Your task to perform on an android device: change the clock style Image 0: 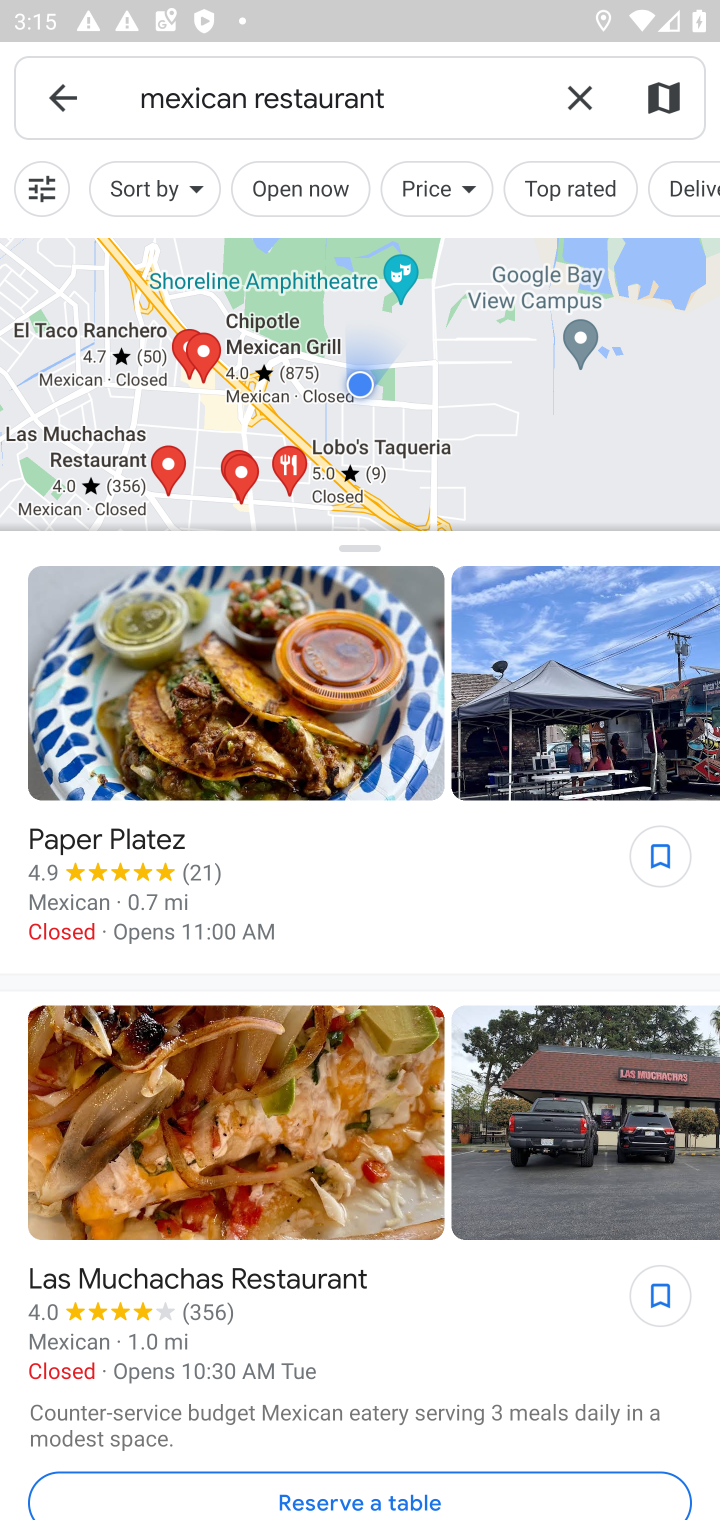
Step 0: press back button
Your task to perform on an android device: change the clock style Image 1: 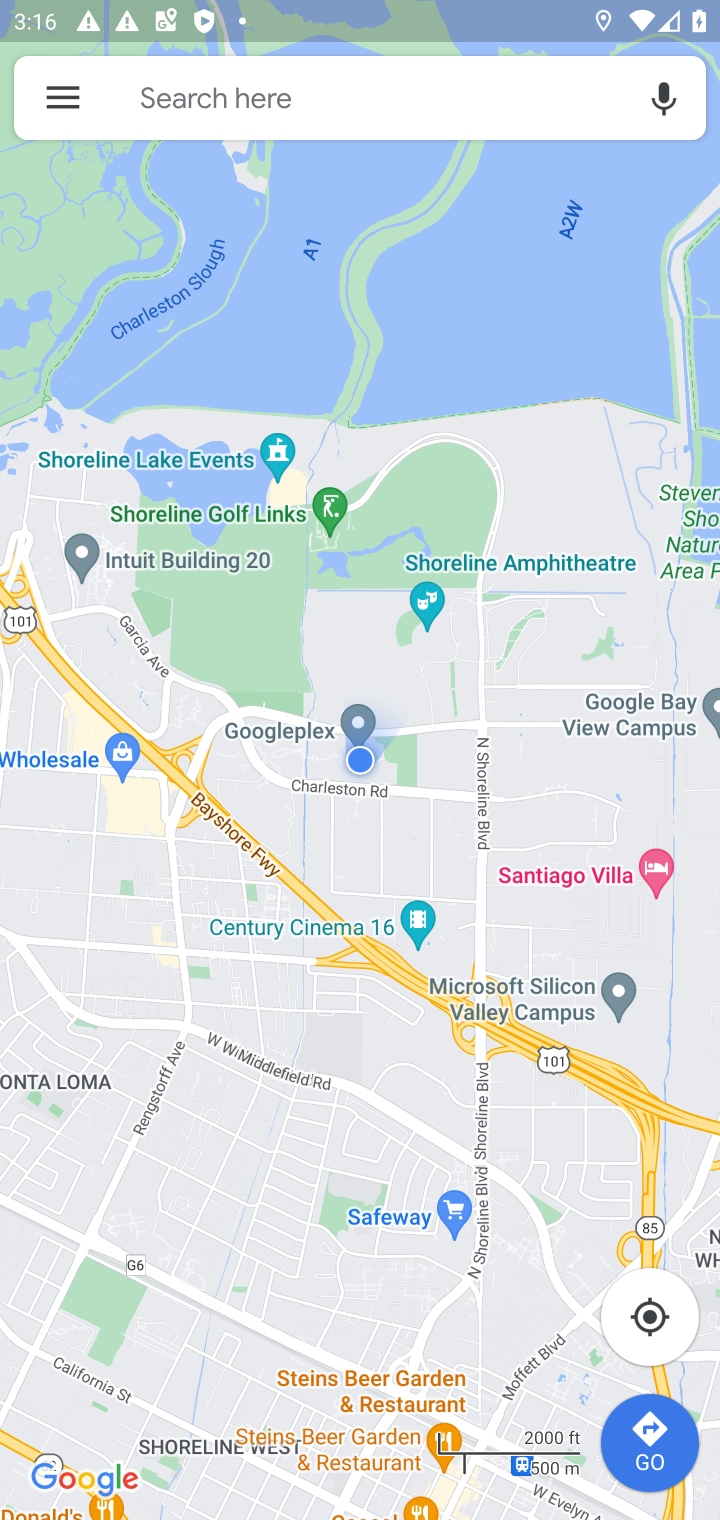
Step 1: press back button
Your task to perform on an android device: change the clock style Image 2: 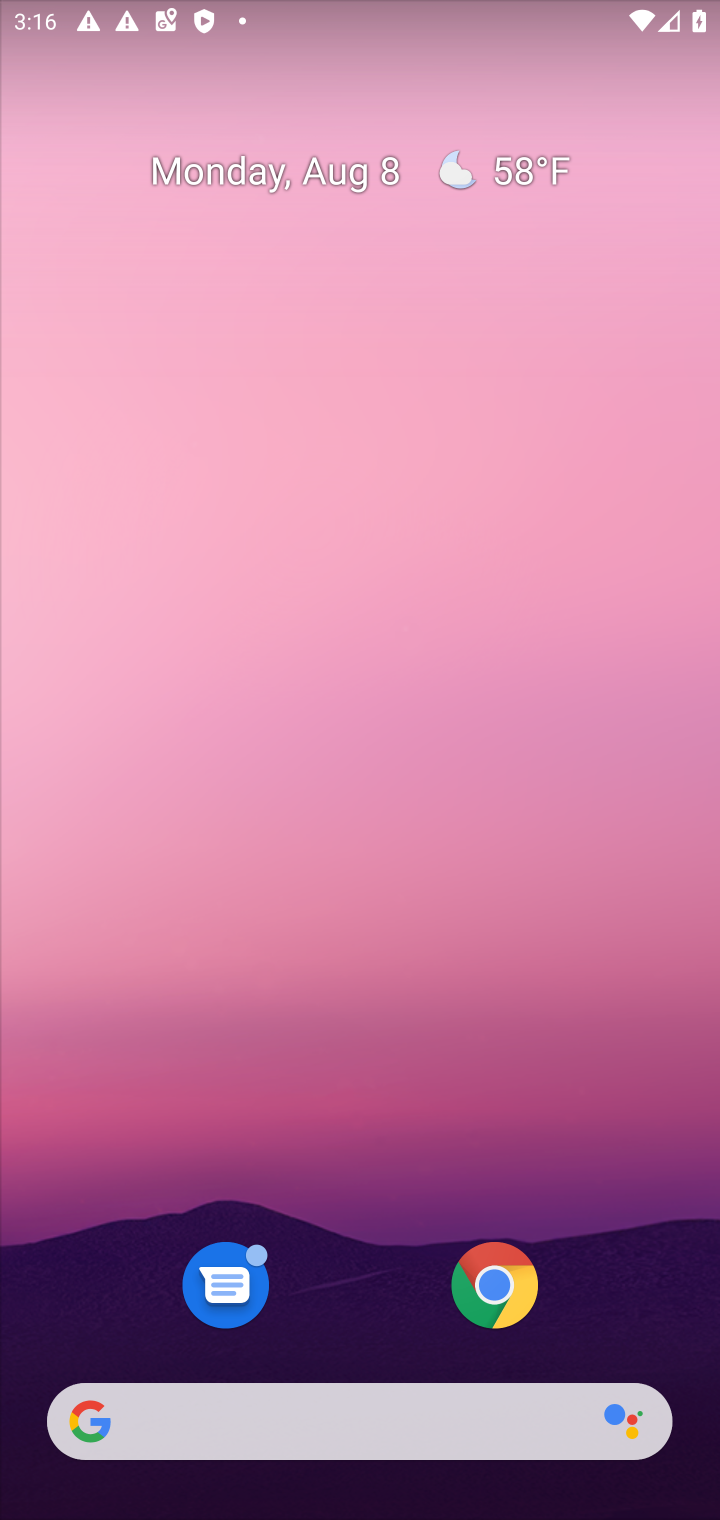
Step 2: drag from (338, 1000) to (375, 220)
Your task to perform on an android device: change the clock style Image 3: 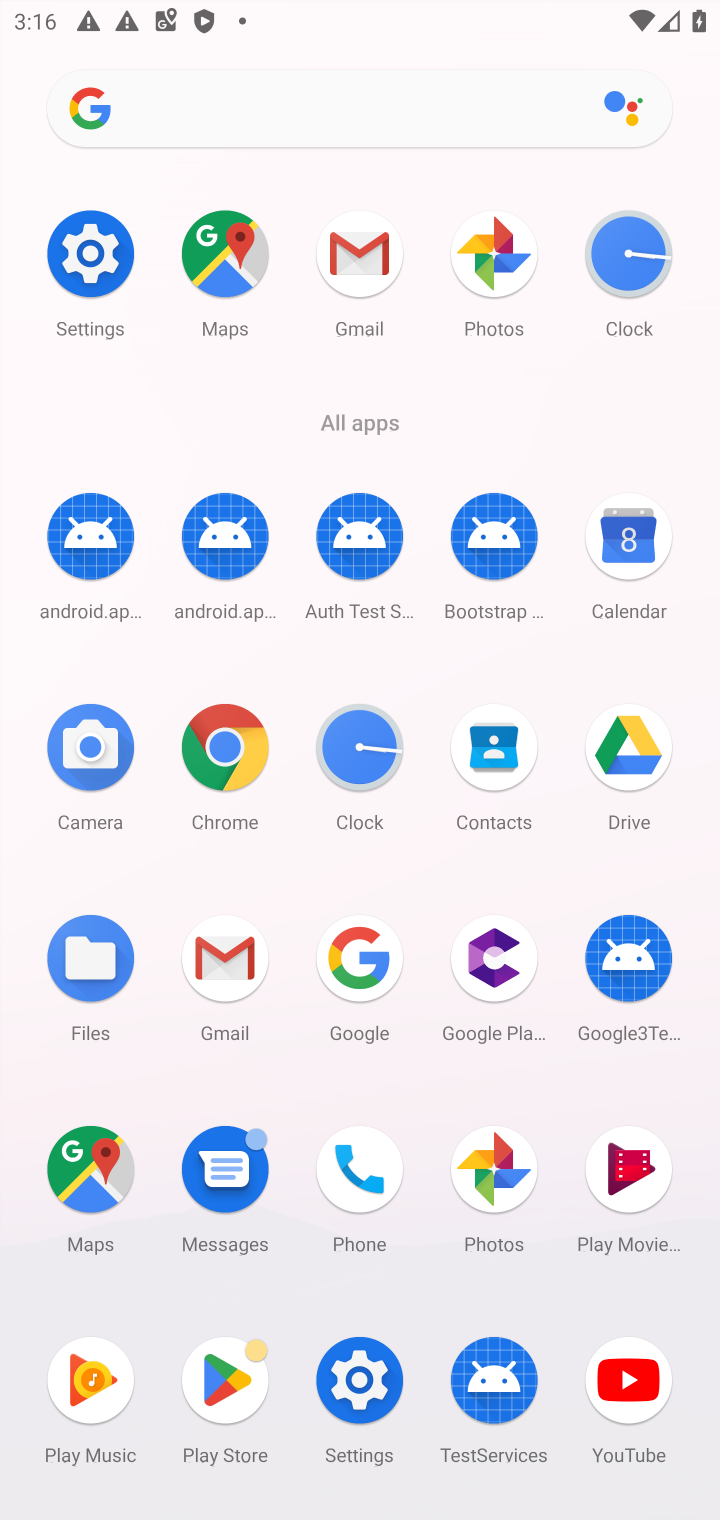
Step 3: click (383, 755)
Your task to perform on an android device: change the clock style Image 4: 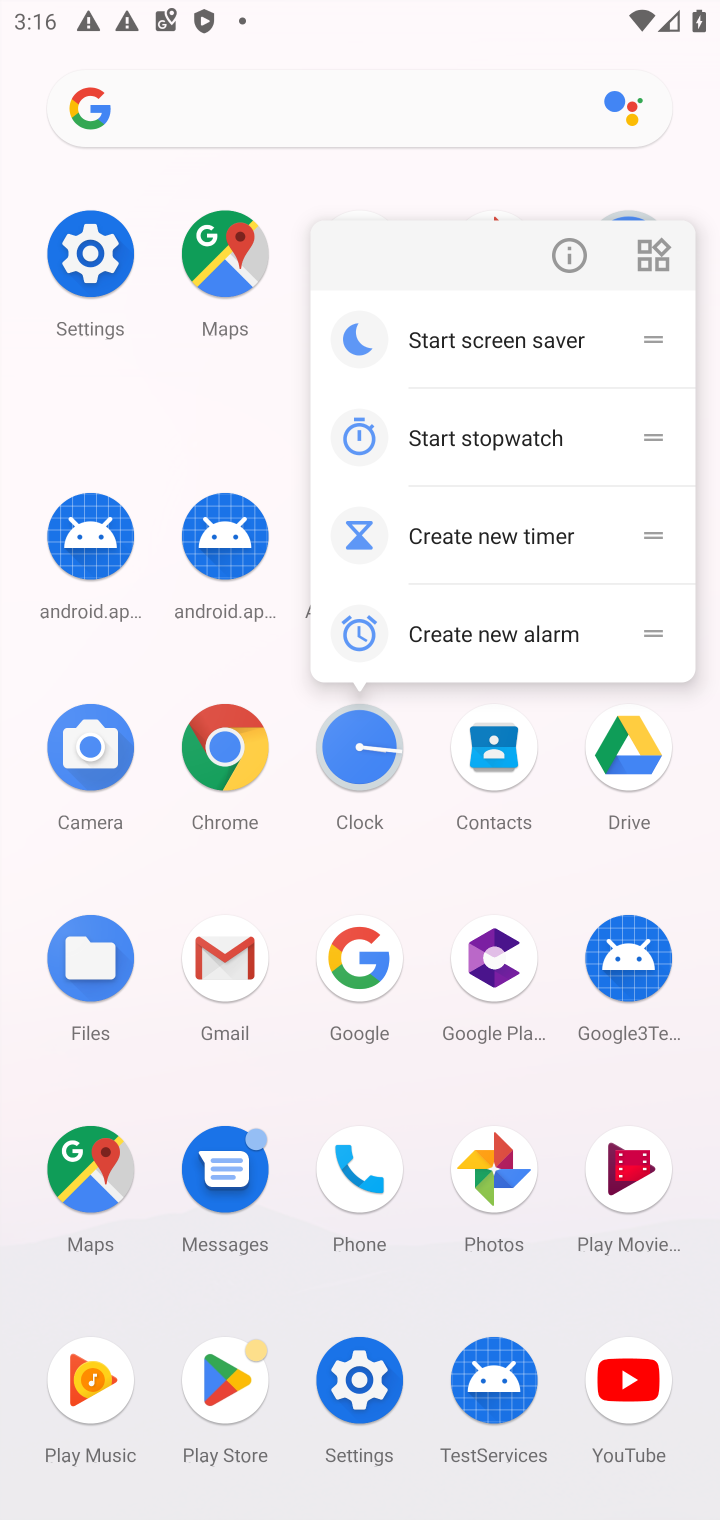
Step 4: click (353, 759)
Your task to perform on an android device: change the clock style Image 5: 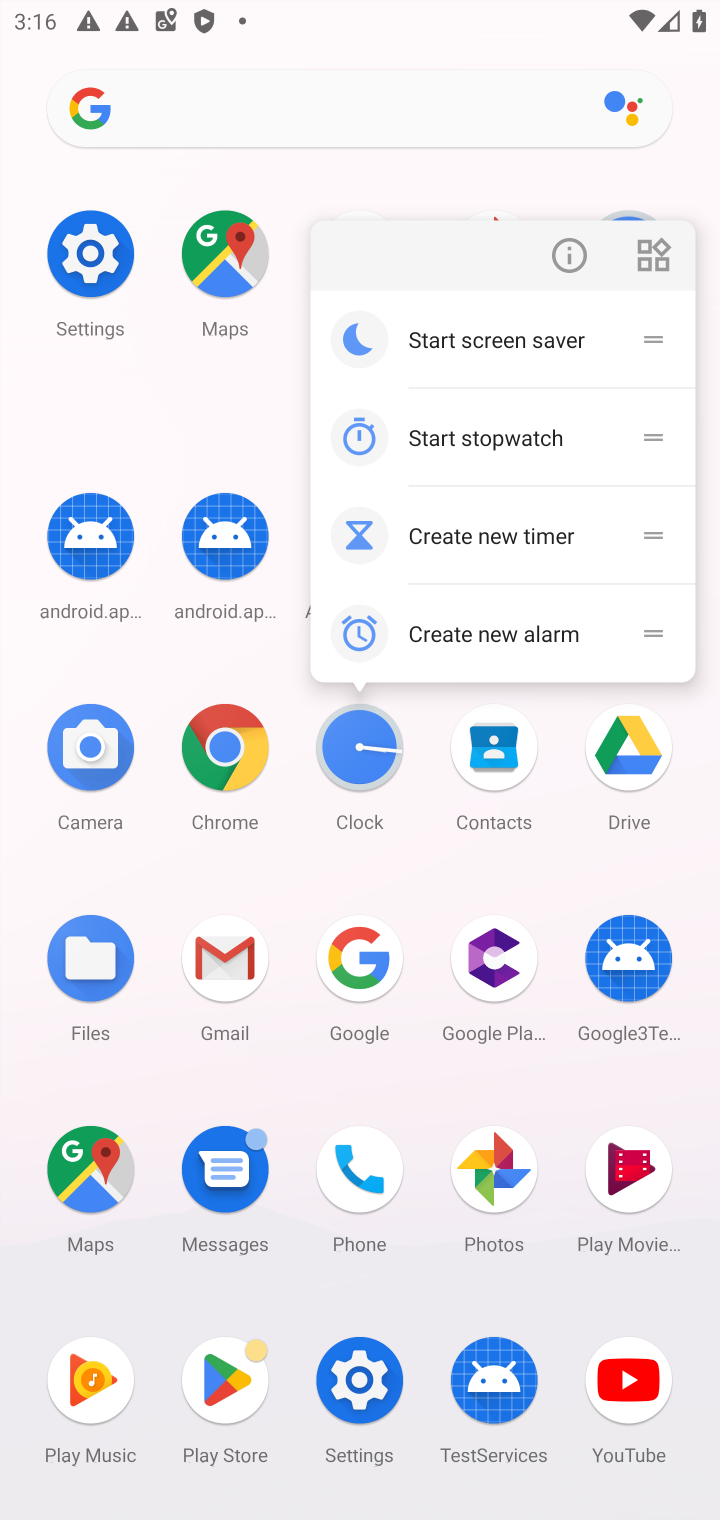
Step 5: click (355, 748)
Your task to perform on an android device: change the clock style Image 6: 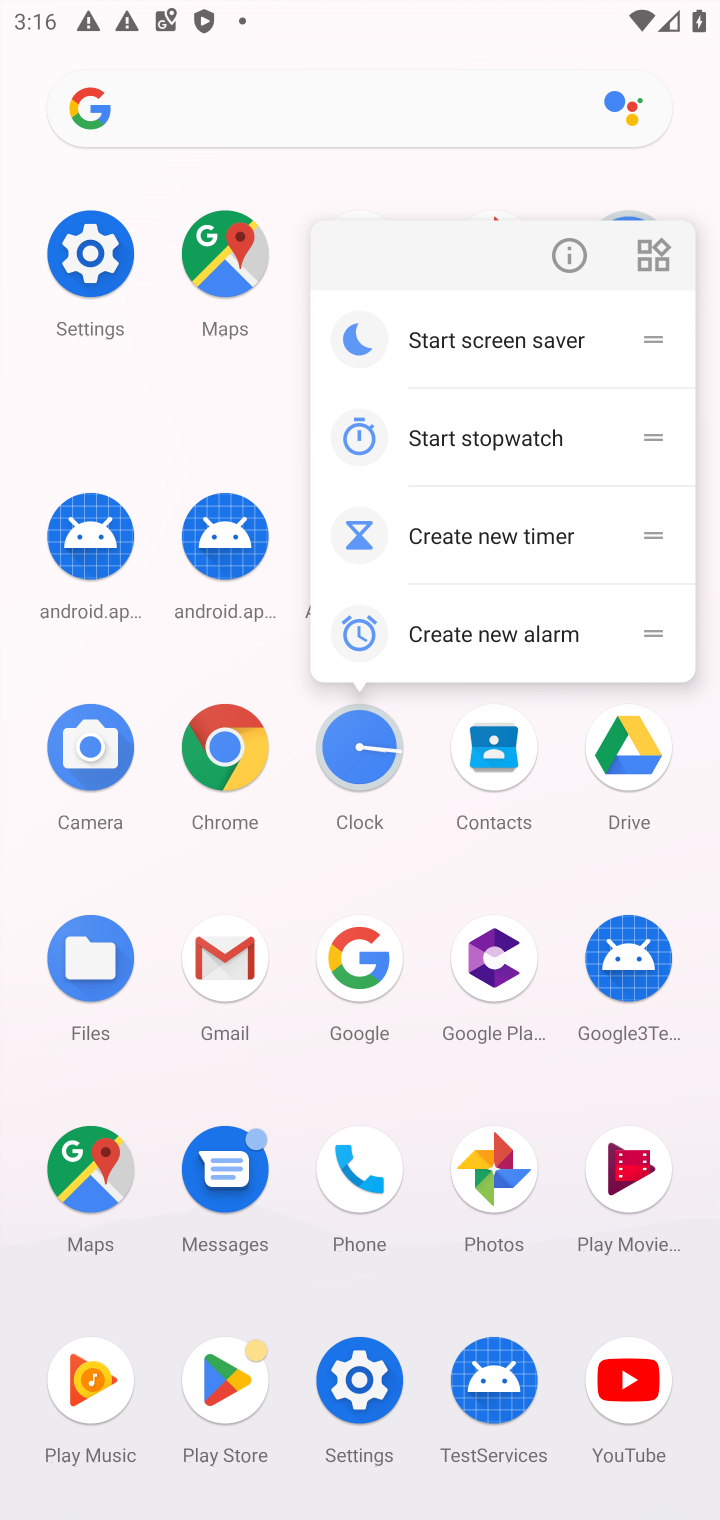
Step 6: click (355, 748)
Your task to perform on an android device: change the clock style Image 7: 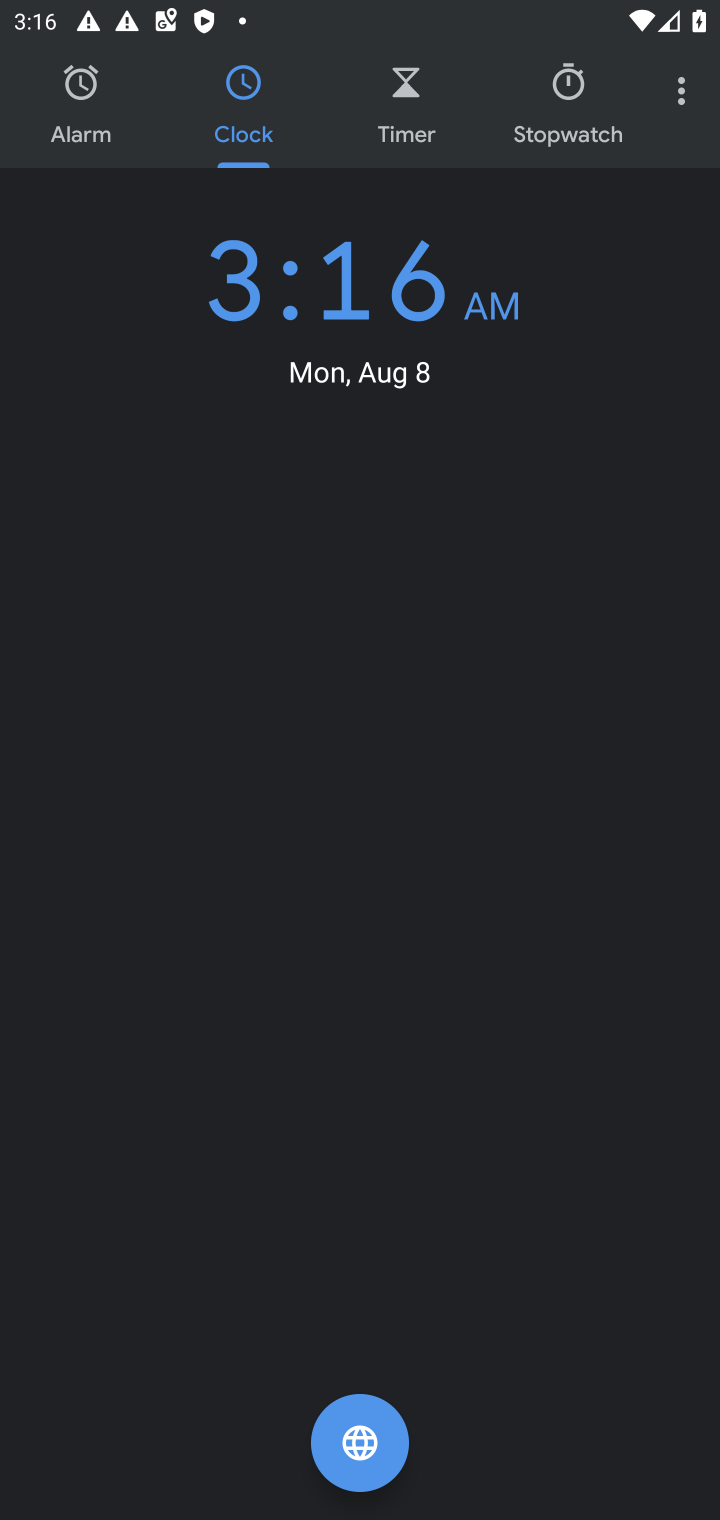
Step 7: click (677, 95)
Your task to perform on an android device: change the clock style Image 8: 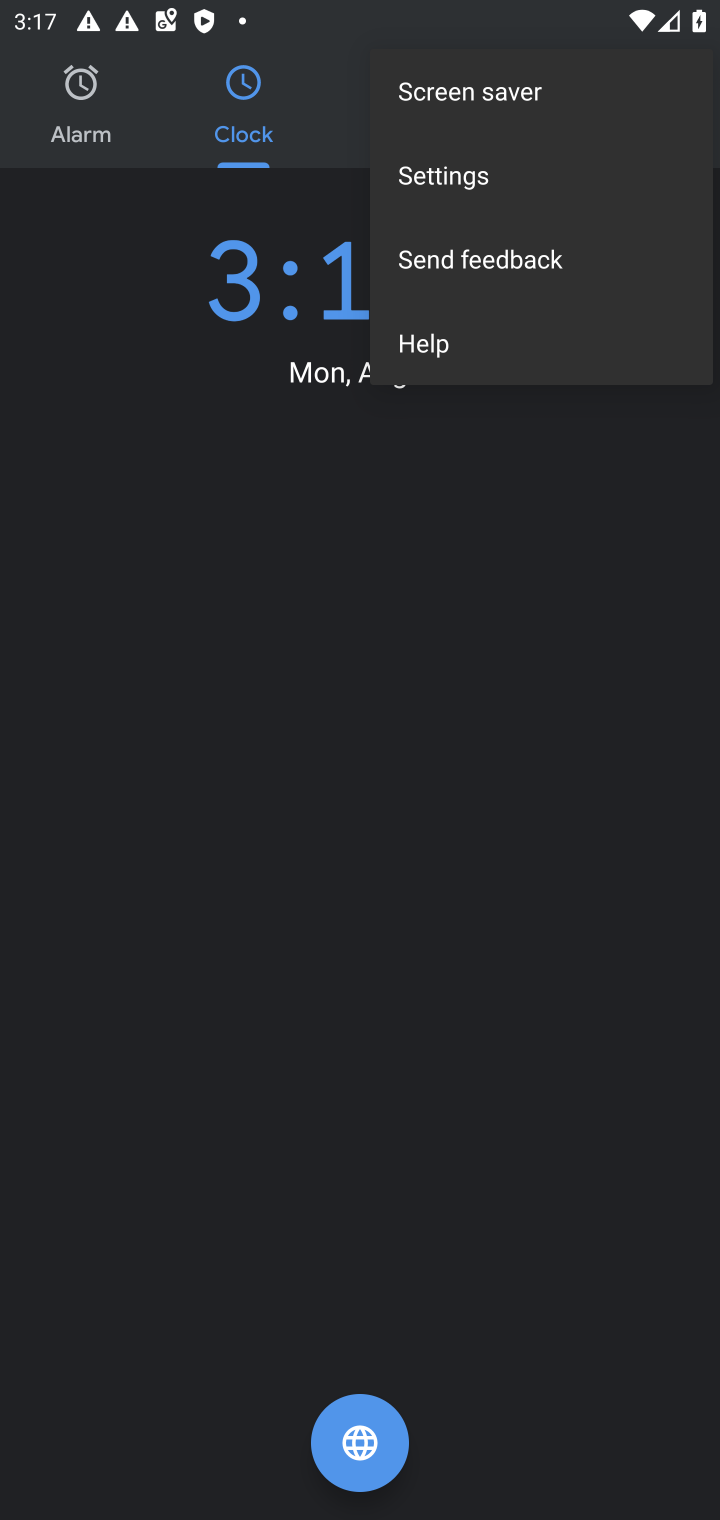
Step 8: click (454, 193)
Your task to perform on an android device: change the clock style Image 9: 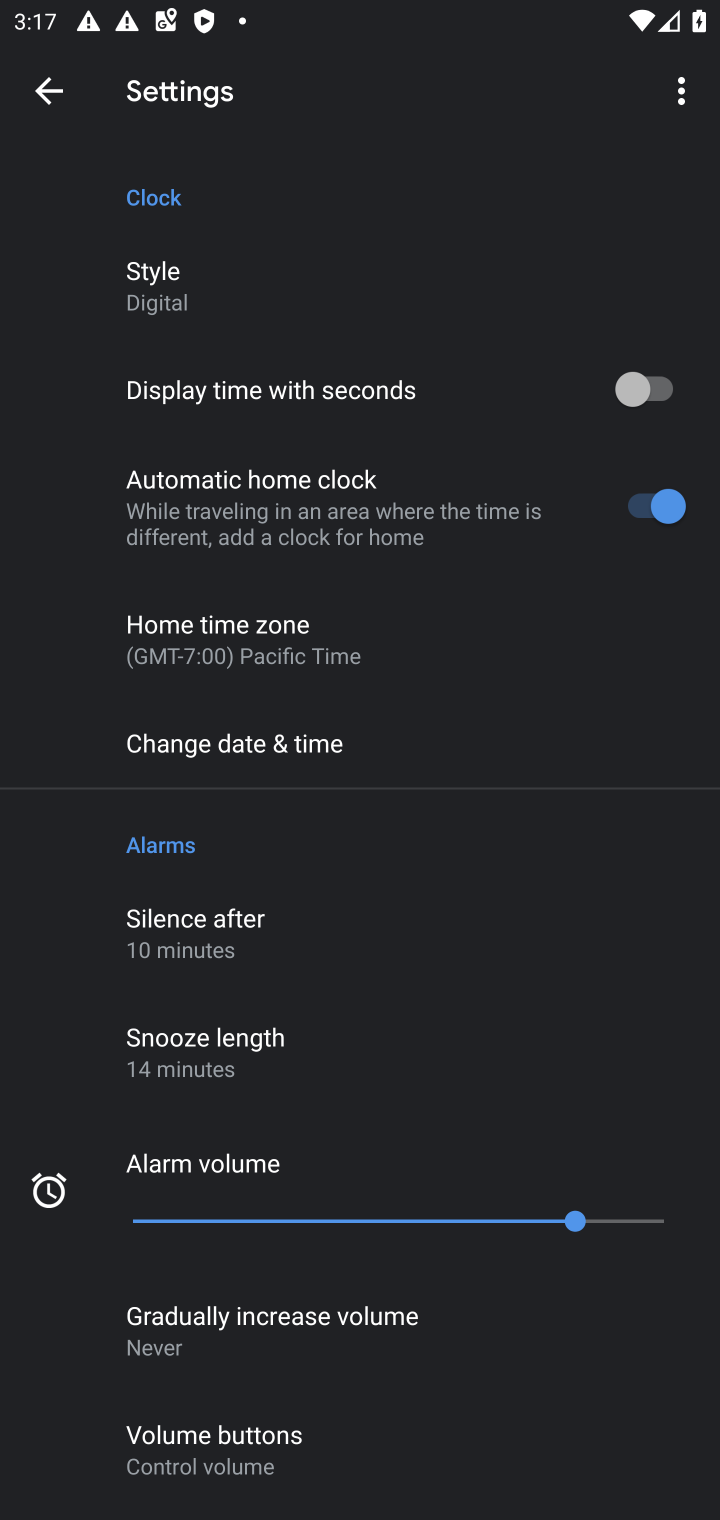
Step 9: click (243, 298)
Your task to perform on an android device: change the clock style Image 10: 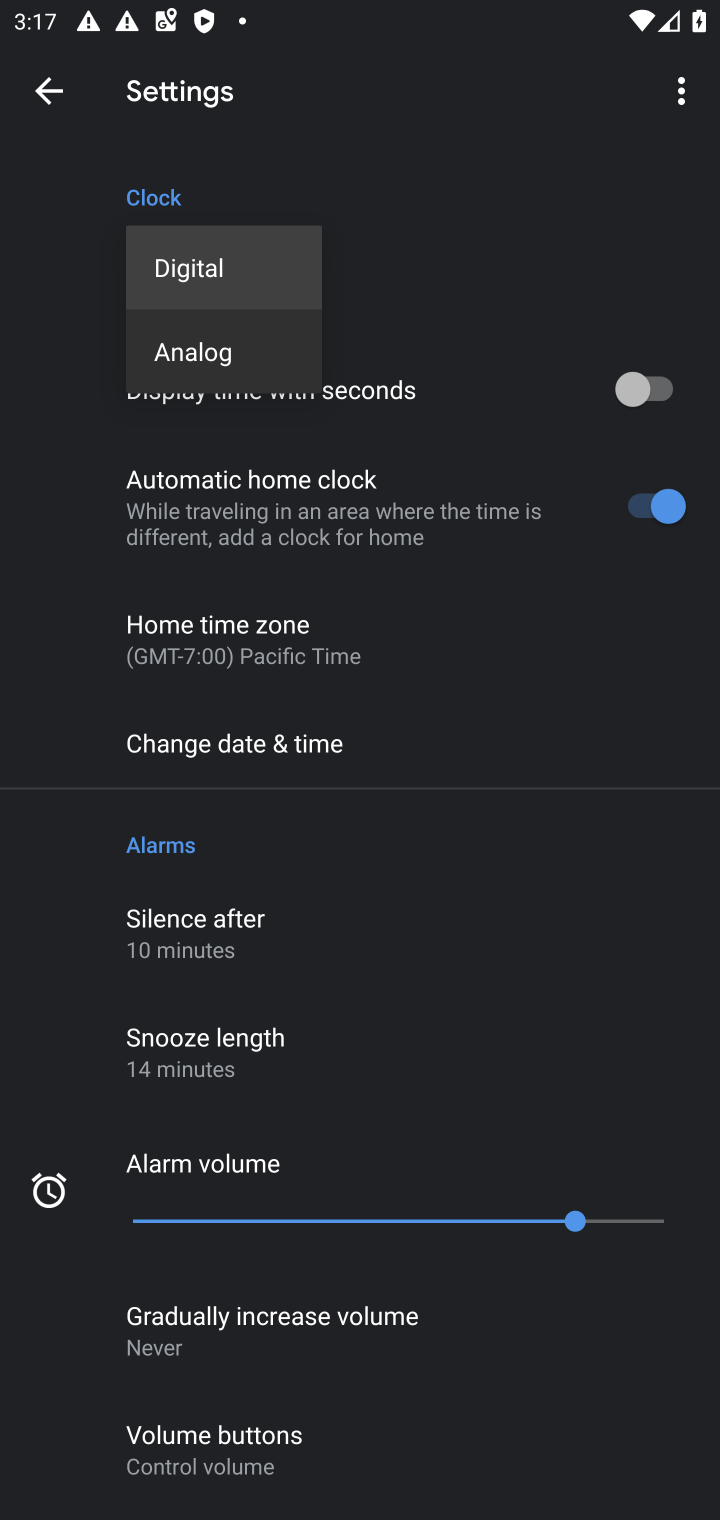
Step 10: click (180, 331)
Your task to perform on an android device: change the clock style Image 11: 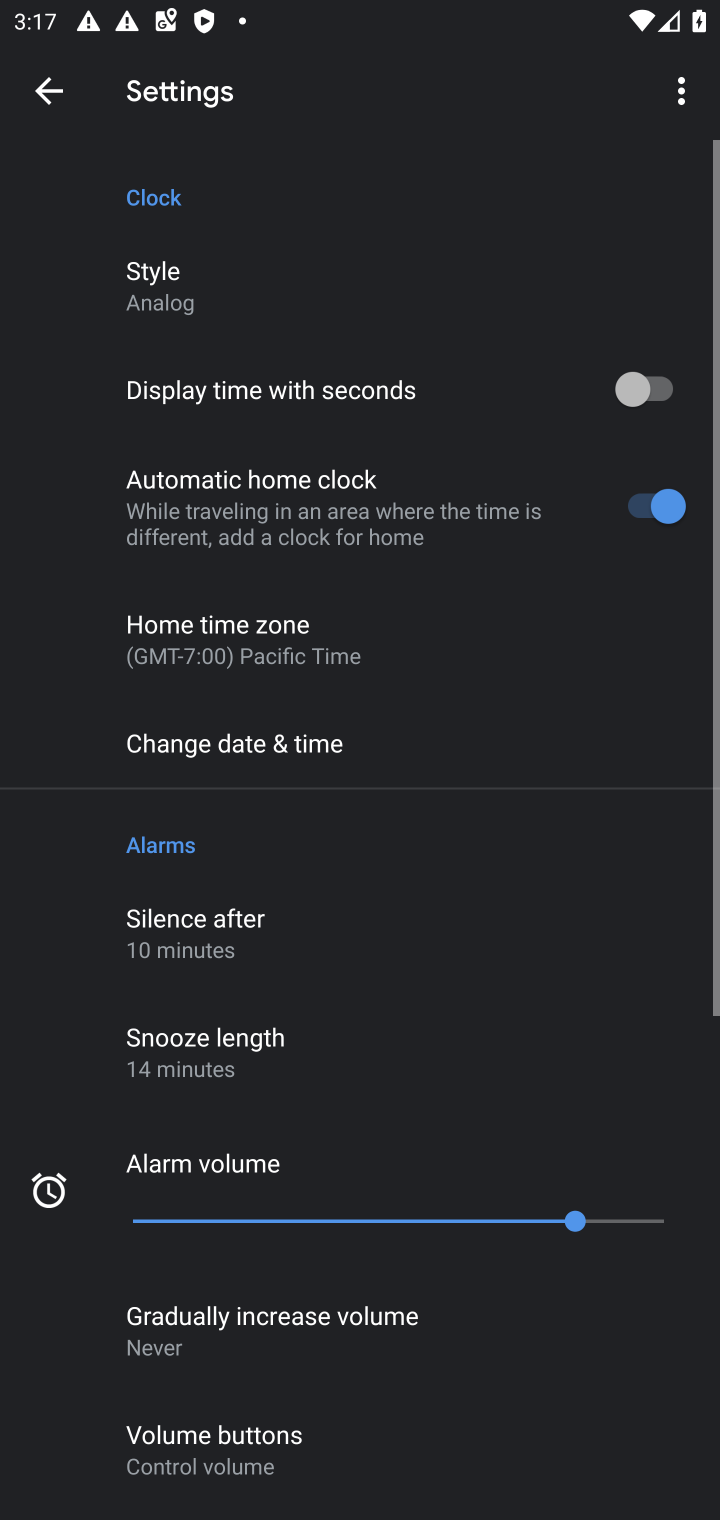
Step 11: task complete